Your task to perform on an android device: toggle improve location accuracy Image 0: 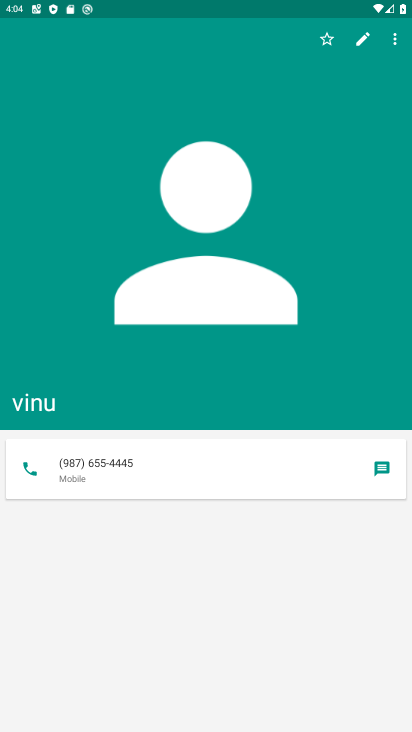
Step 0: press home button
Your task to perform on an android device: toggle improve location accuracy Image 1: 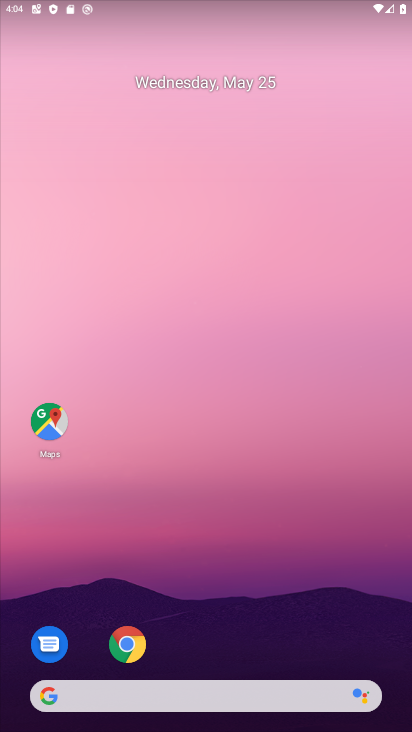
Step 1: drag from (275, 617) to (297, 3)
Your task to perform on an android device: toggle improve location accuracy Image 2: 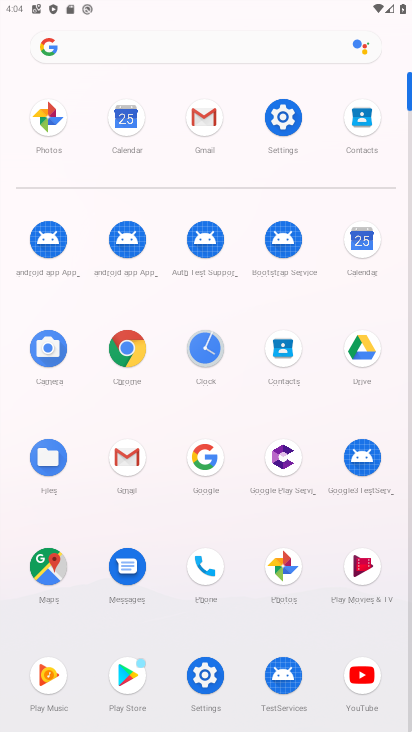
Step 2: click (283, 122)
Your task to perform on an android device: toggle improve location accuracy Image 3: 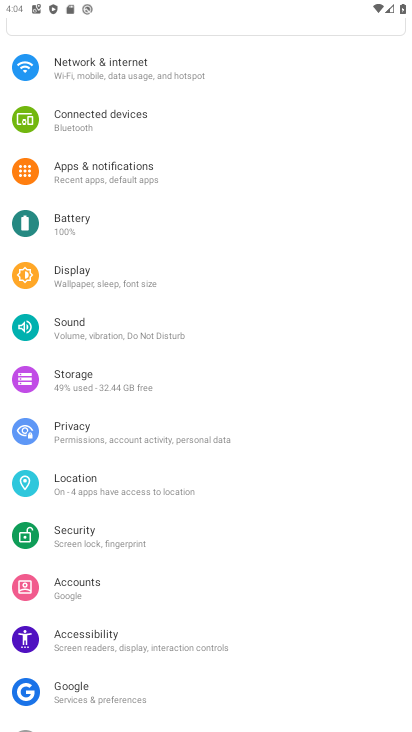
Step 3: click (63, 487)
Your task to perform on an android device: toggle improve location accuracy Image 4: 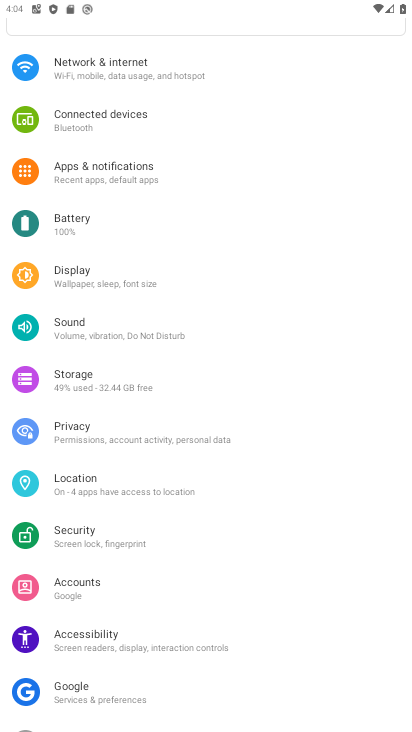
Step 4: click (75, 484)
Your task to perform on an android device: toggle improve location accuracy Image 5: 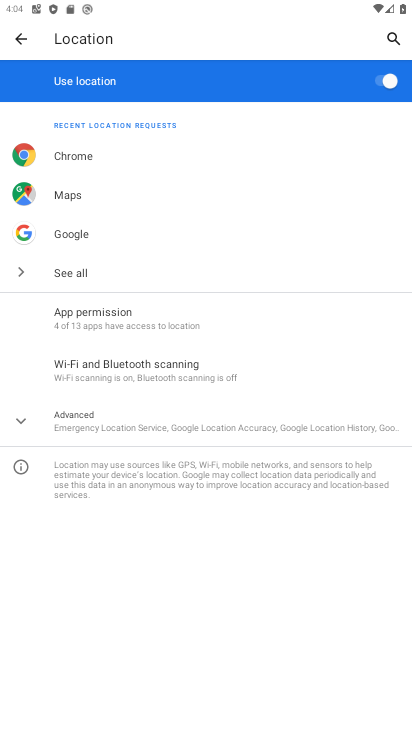
Step 5: click (15, 423)
Your task to perform on an android device: toggle improve location accuracy Image 6: 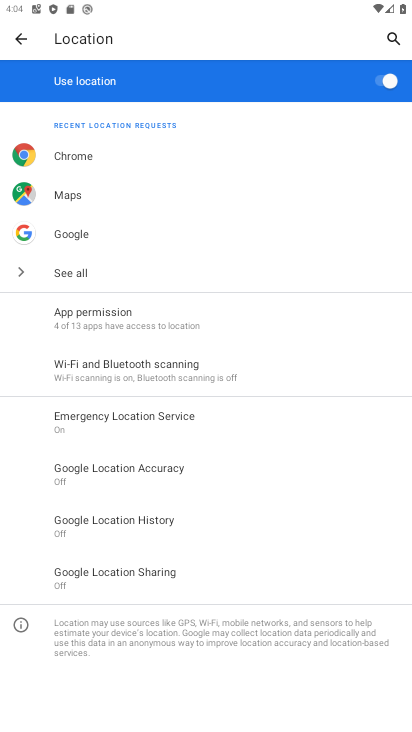
Step 6: click (68, 472)
Your task to perform on an android device: toggle improve location accuracy Image 7: 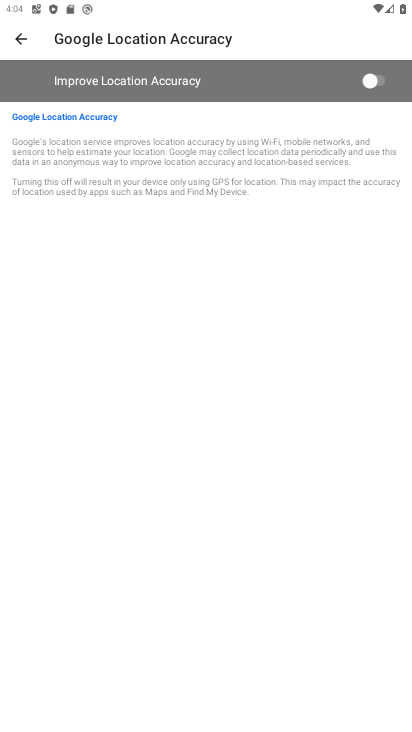
Step 7: click (370, 93)
Your task to perform on an android device: toggle improve location accuracy Image 8: 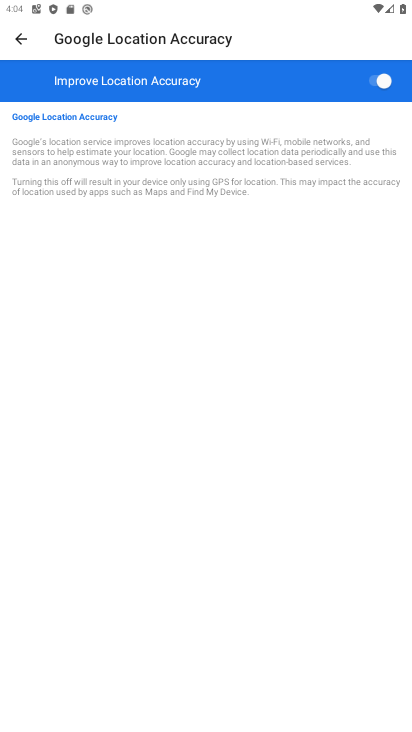
Step 8: task complete